Your task to perform on an android device: open sync settings in chrome Image 0: 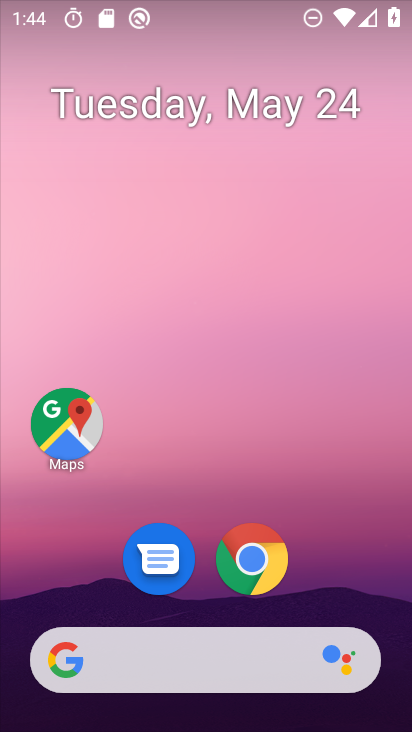
Step 0: click (257, 561)
Your task to perform on an android device: open sync settings in chrome Image 1: 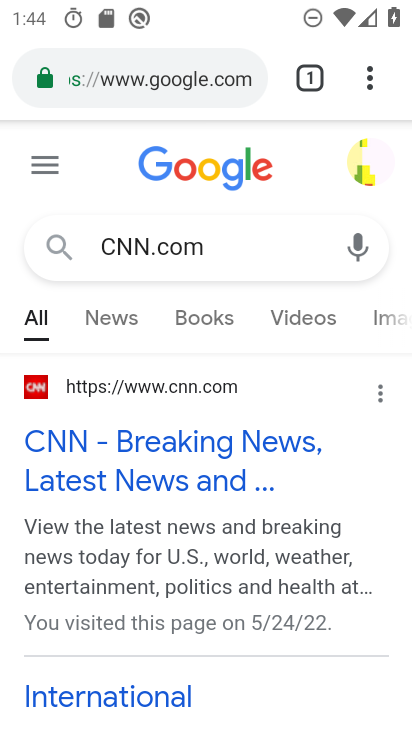
Step 1: click (366, 84)
Your task to perform on an android device: open sync settings in chrome Image 2: 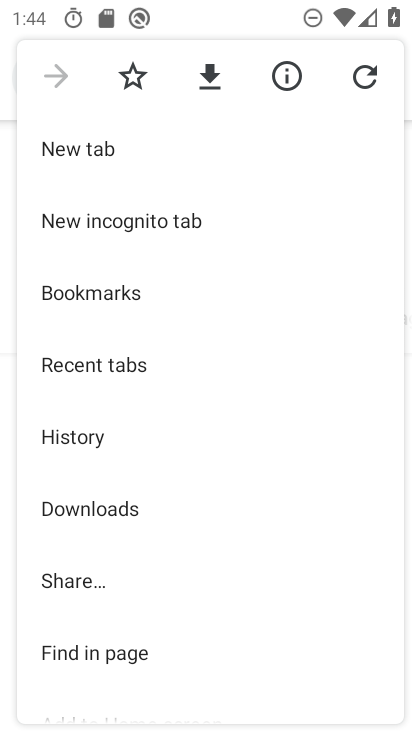
Step 2: drag from (245, 639) to (247, 338)
Your task to perform on an android device: open sync settings in chrome Image 3: 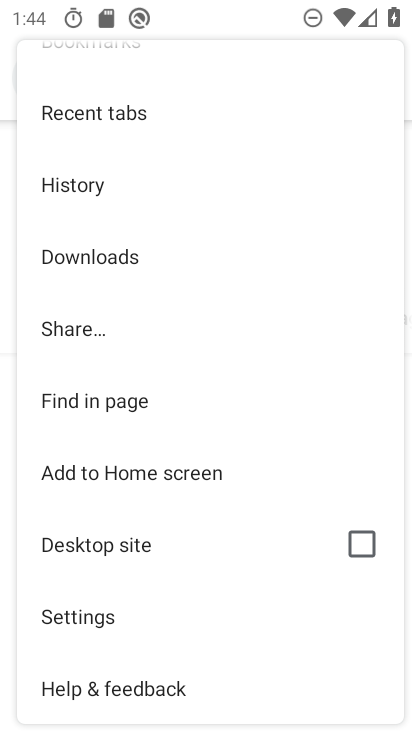
Step 3: click (74, 615)
Your task to perform on an android device: open sync settings in chrome Image 4: 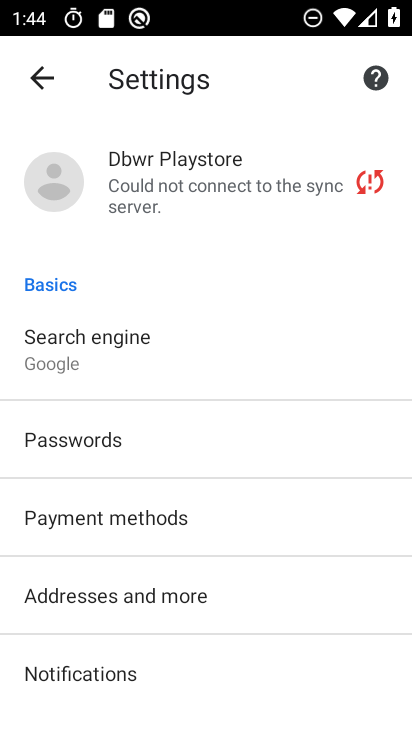
Step 4: drag from (254, 679) to (241, 289)
Your task to perform on an android device: open sync settings in chrome Image 5: 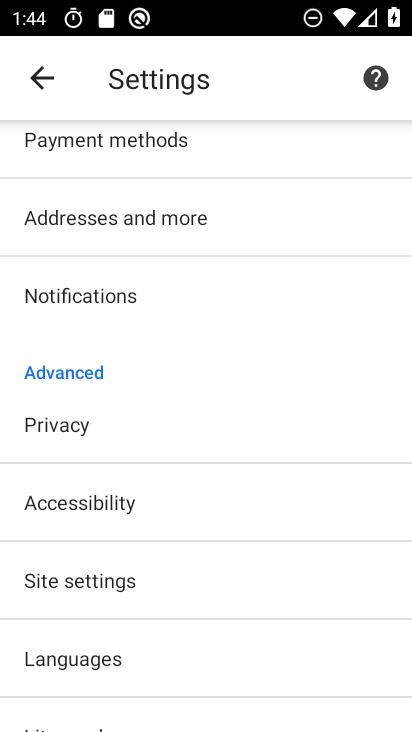
Step 5: drag from (229, 696) to (235, 411)
Your task to perform on an android device: open sync settings in chrome Image 6: 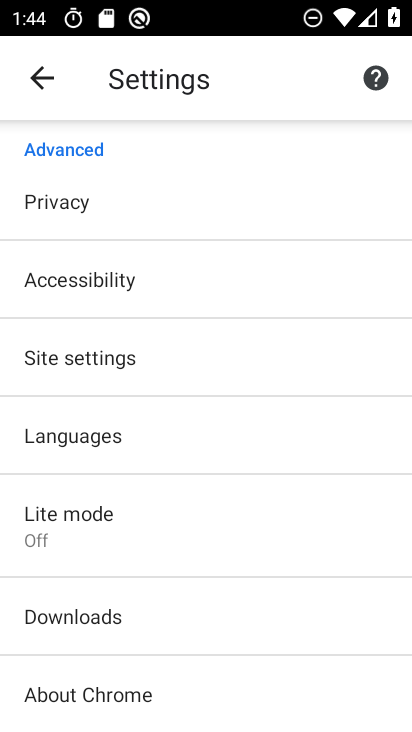
Step 6: click (65, 350)
Your task to perform on an android device: open sync settings in chrome Image 7: 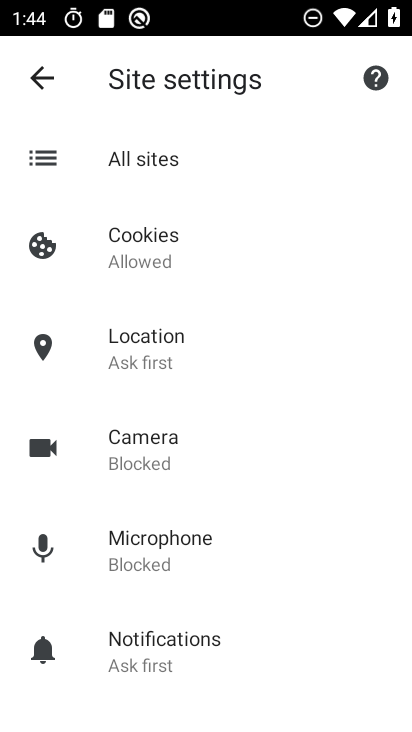
Step 7: drag from (251, 683) to (205, 258)
Your task to perform on an android device: open sync settings in chrome Image 8: 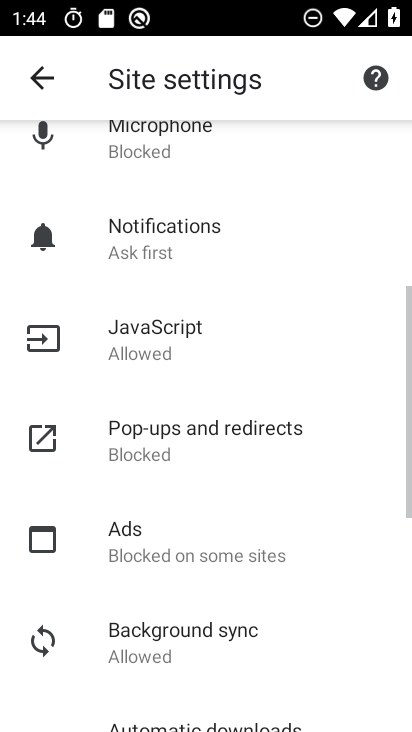
Step 8: click (139, 632)
Your task to perform on an android device: open sync settings in chrome Image 9: 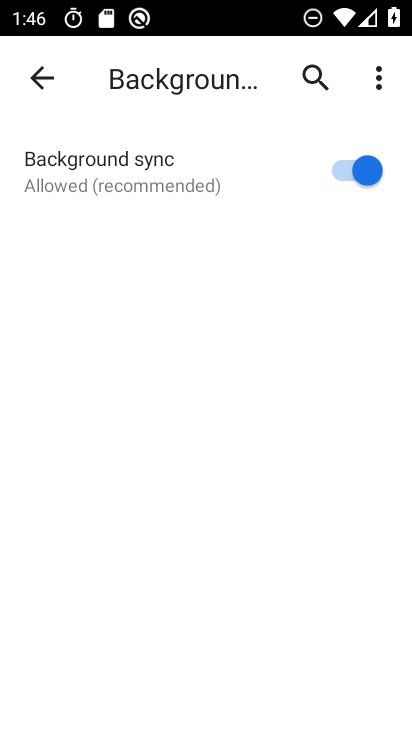
Step 9: task complete